Your task to perform on an android device: Open ESPN.com Image 0: 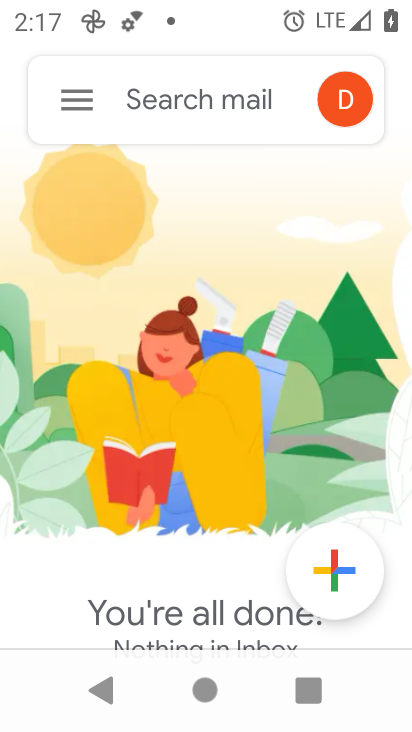
Step 0: press home button
Your task to perform on an android device: Open ESPN.com Image 1: 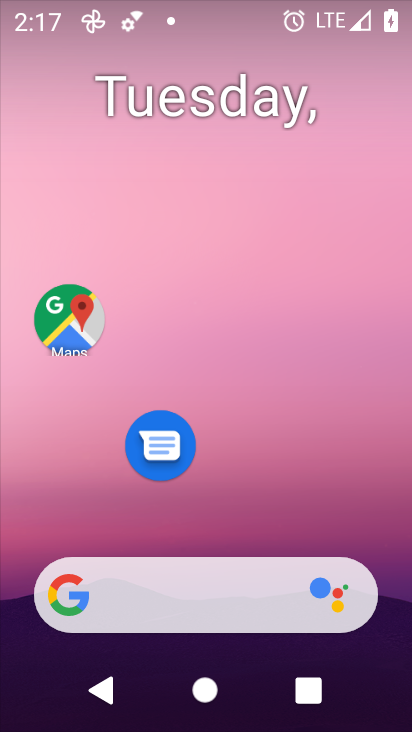
Step 1: drag from (248, 472) to (128, 39)
Your task to perform on an android device: Open ESPN.com Image 2: 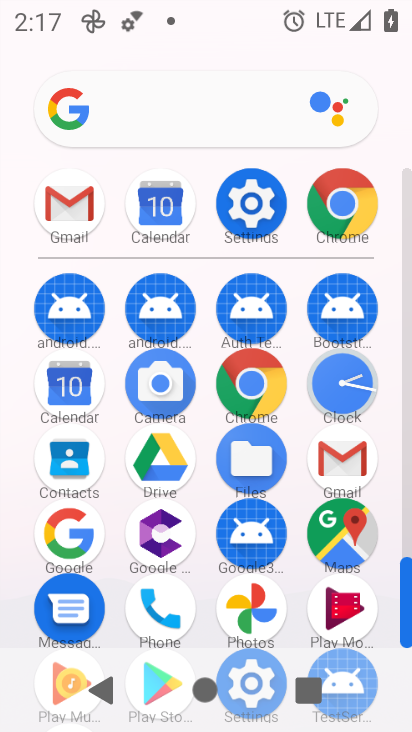
Step 2: click (341, 202)
Your task to perform on an android device: Open ESPN.com Image 3: 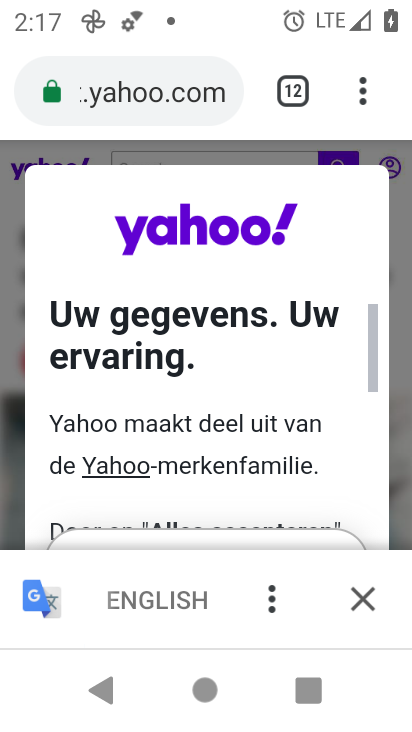
Step 3: click (361, 86)
Your task to perform on an android device: Open ESPN.com Image 4: 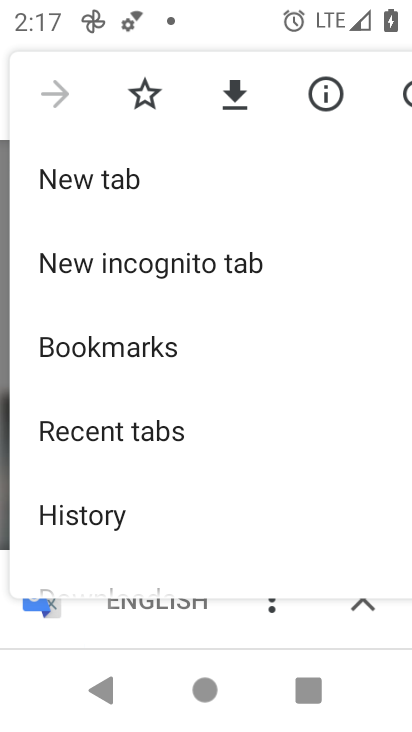
Step 4: click (106, 179)
Your task to perform on an android device: Open ESPN.com Image 5: 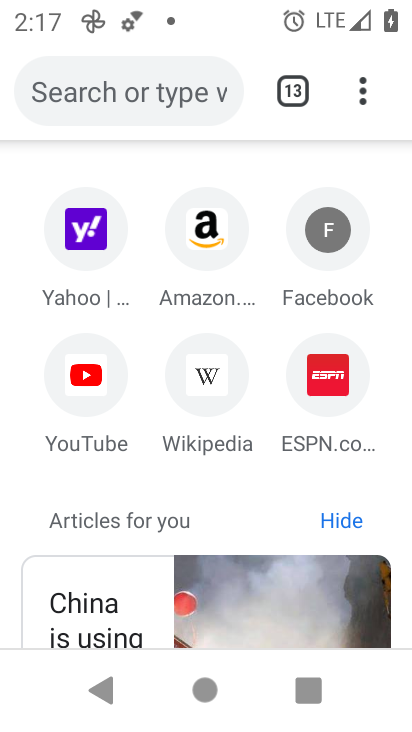
Step 5: click (337, 384)
Your task to perform on an android device: Open ESPN.com Image 6: 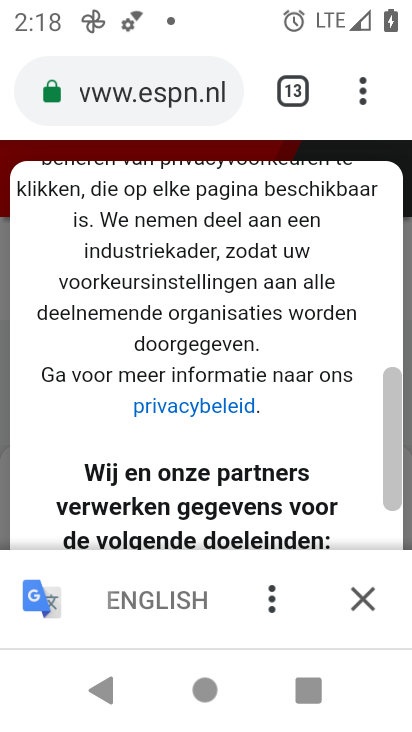
Step 6: task complete